Your task to perform on an android device: open the mobile data screen to see how much data has been used Image 0: 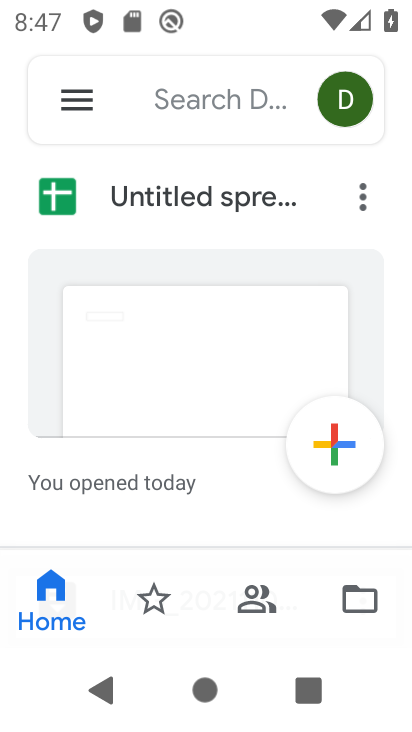
Step 0: press home button
Your task to perform on an android device: open the mobile data screen to see how much data has been used Image 1: 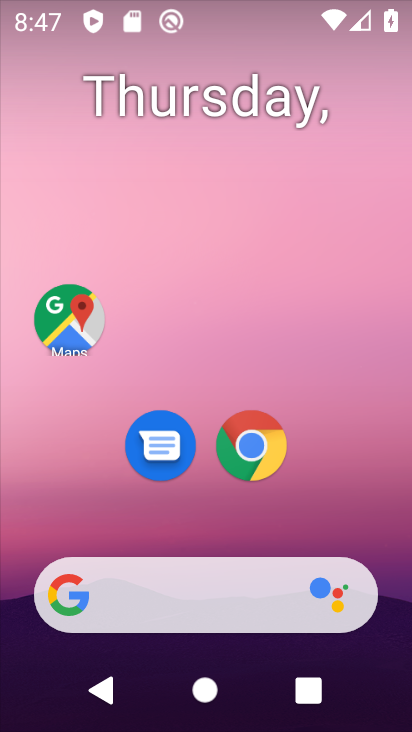
Step 1: drag from (225, 531) to (257, 0)
Your task to perform on an android device: open the mobile data screen to see how much data has been used Image 2: 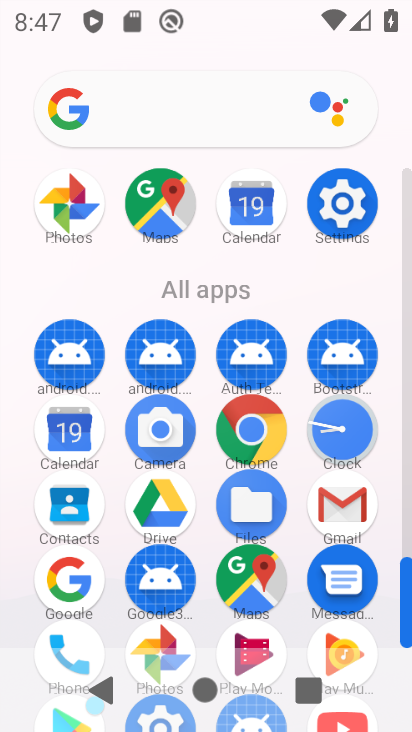
Step 2: click (351, 203)
Your task to perform on an android device: open the mobile data screen to see how much data has been used Image 3: 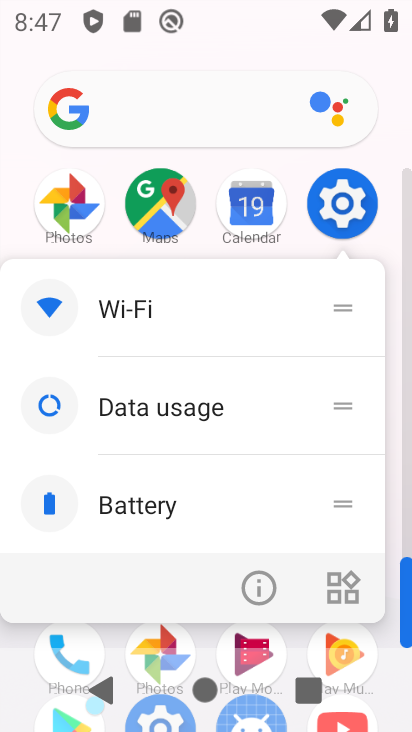
Step 3: click (349, 206)
Your task to perform on an android device: open the mobile data screen to see how much data has been used Image 4: 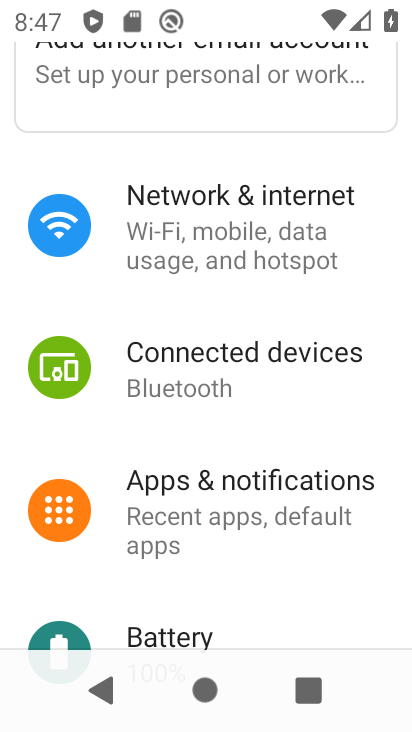
Step 4: click (245, 230)
Your task to perform on an android device: open the mobile data screen to see how much data has been used Image 5: 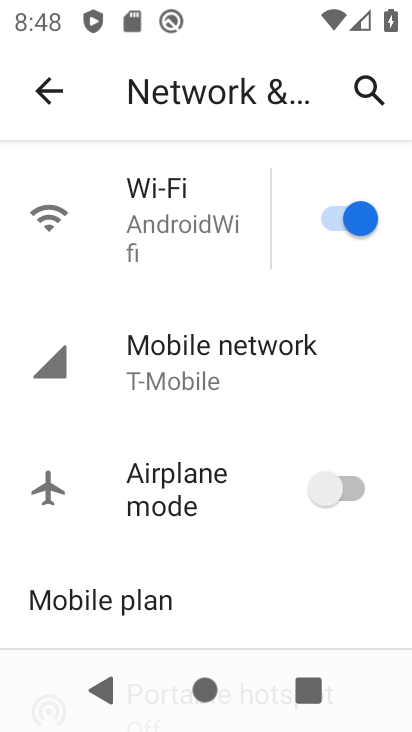
Step 5: click (182, 394)
Your task to perform on an android device: open the mobile data screen to see how much data has been used Image 6: 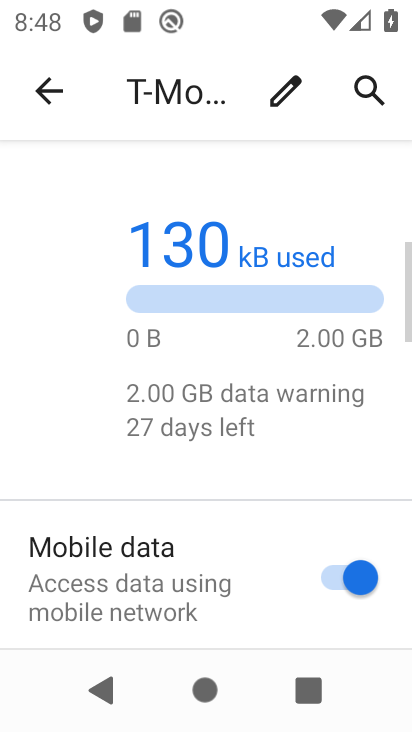
Step 6: drag from (190, 515) to (247, 206)
Your task to perform on an android device: open the mobile data screen to see how much data has been used Image 7: 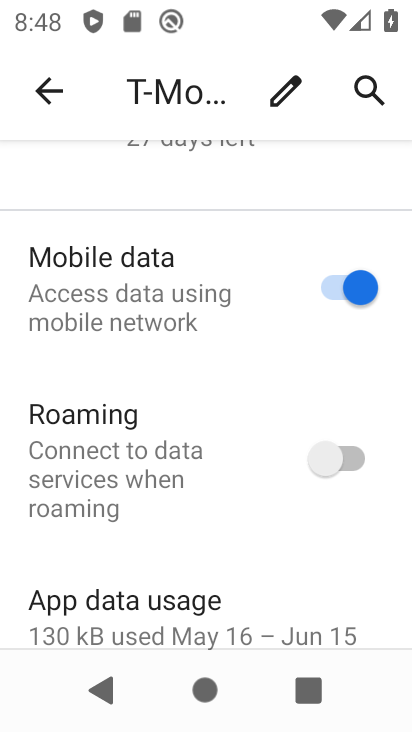
Step 7: drag from (180, 545) to (208, 332)
Your task to perform on an android device: open the mobile data screen to see how much data has been used Image 8: 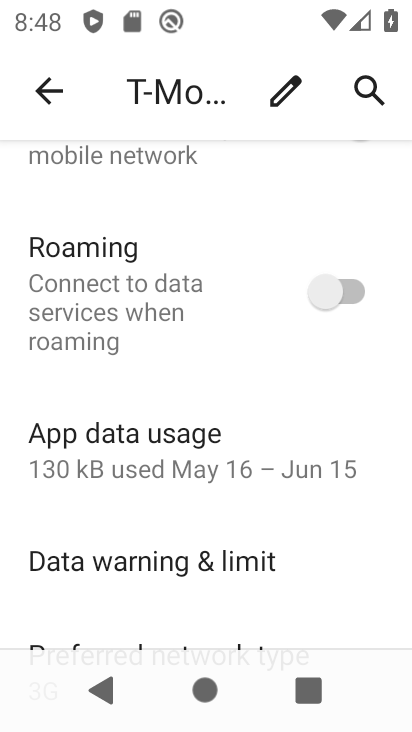
Step 8: click (165, 468)
Your task to perform on an android device: open the mobile data screen to see how much data has been used Image 9: 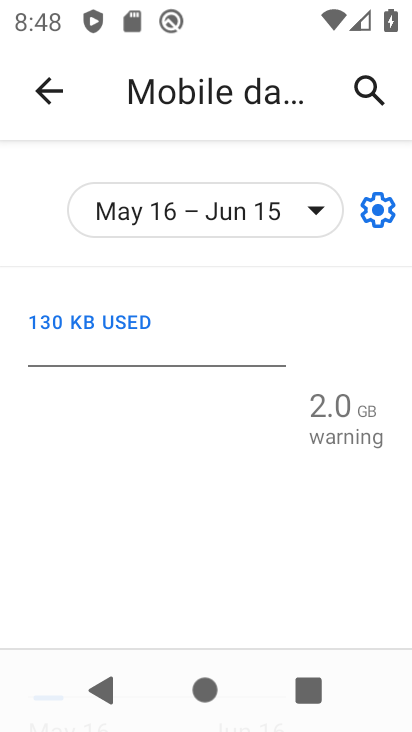
Step 9: task complete